Your task to perform on an android device: Search for 3d printer on AliExpress Image 0: 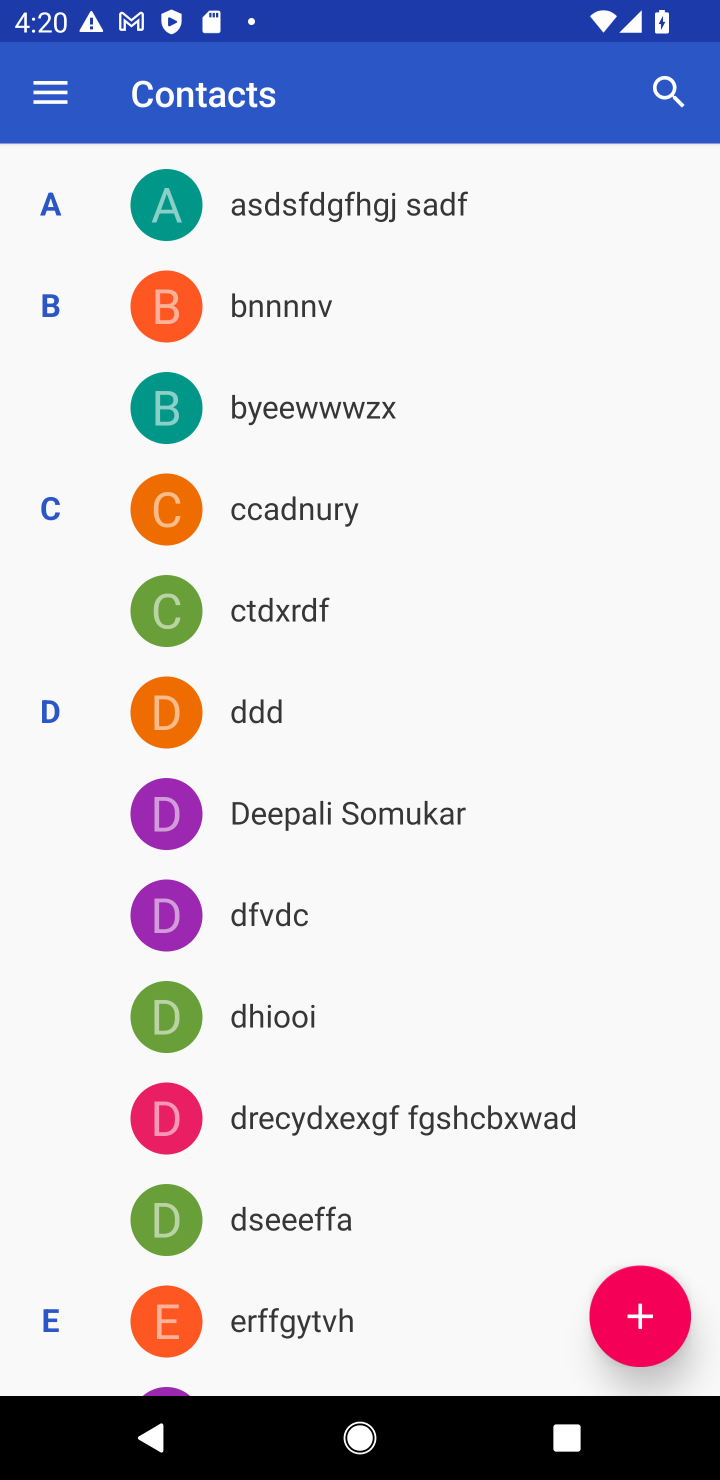
Step 0: press home button
Your task to perform on an android device: Search for 3d printer on AliExpress Image 1: 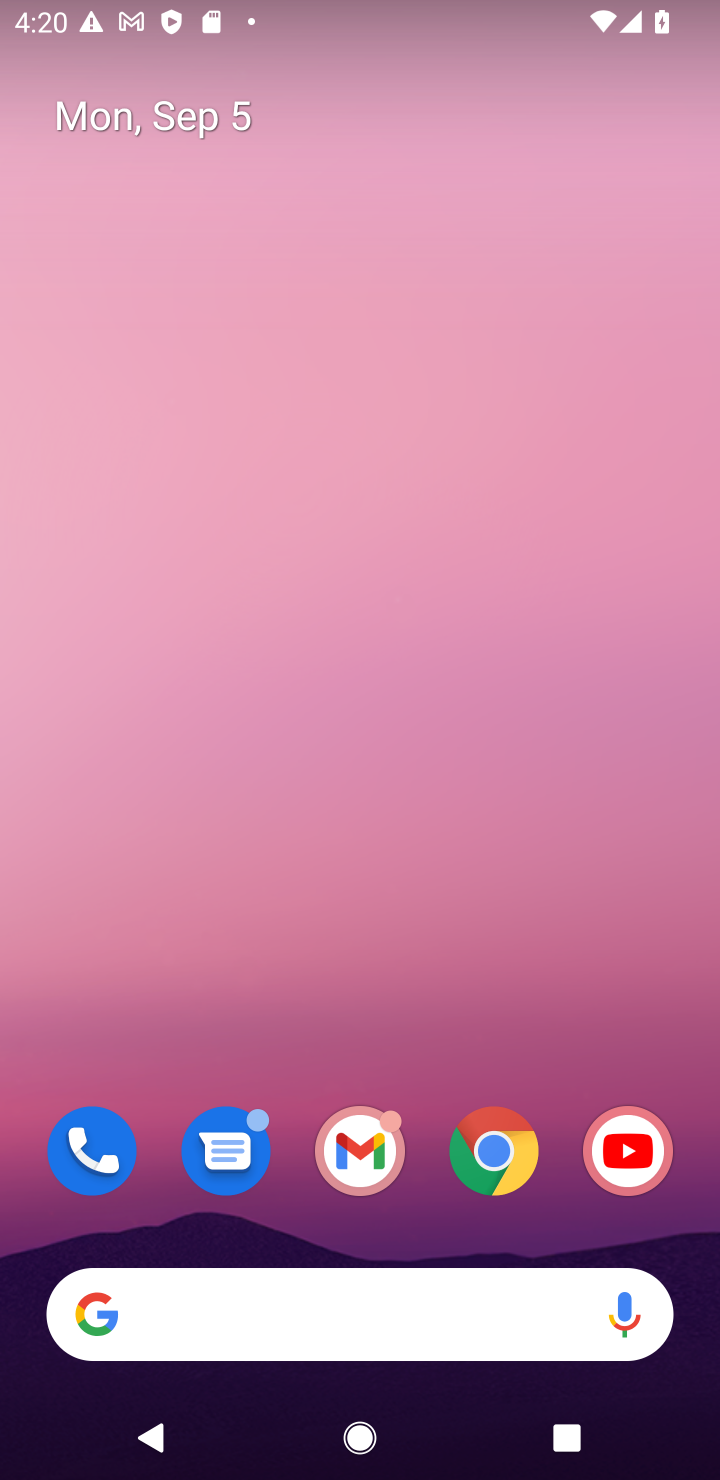
Step 1: drag from (444, 1168) to (394, 259)
Your task to perform on an android device: Search for 3d printer on AliExpress Image 2: 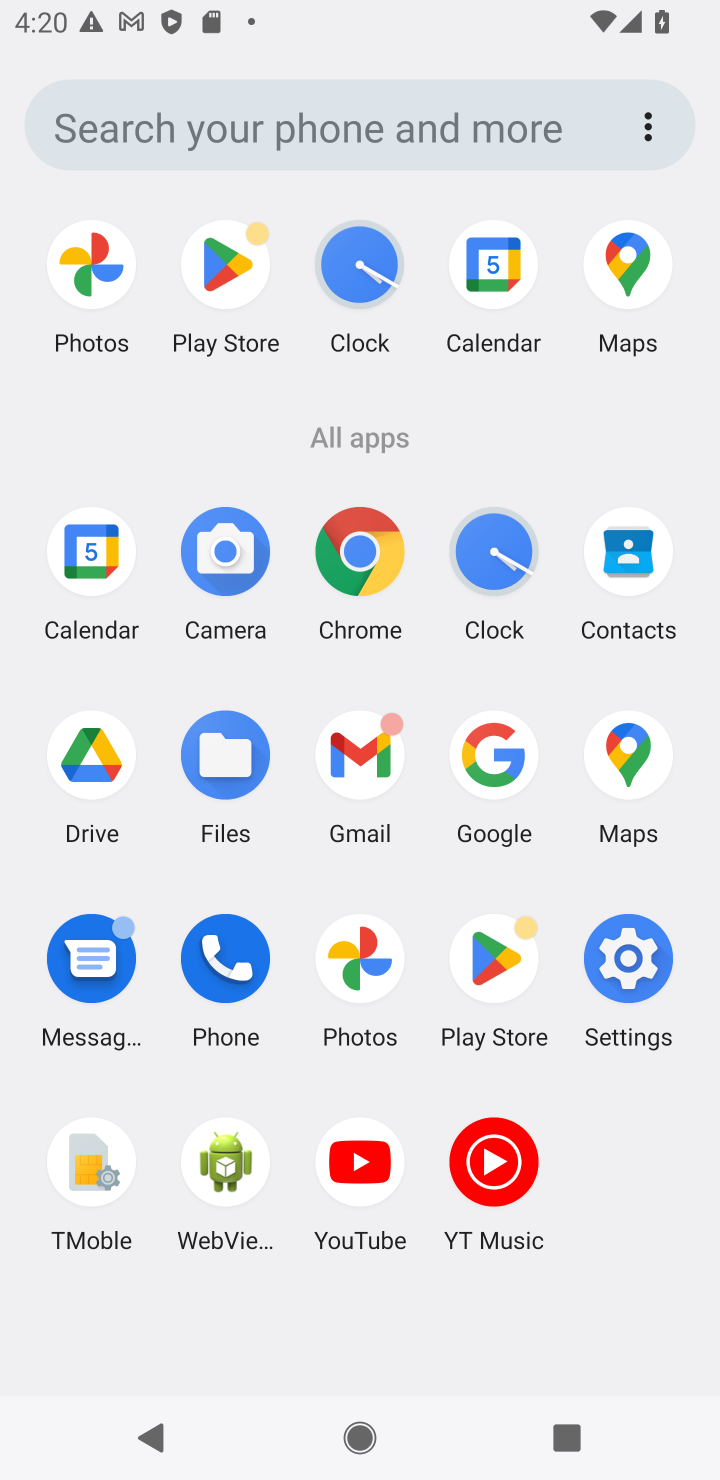
Step 2: click (365, 576)
Your task to perform on an android device: Search for 3d printer on AliExpress Image 3: 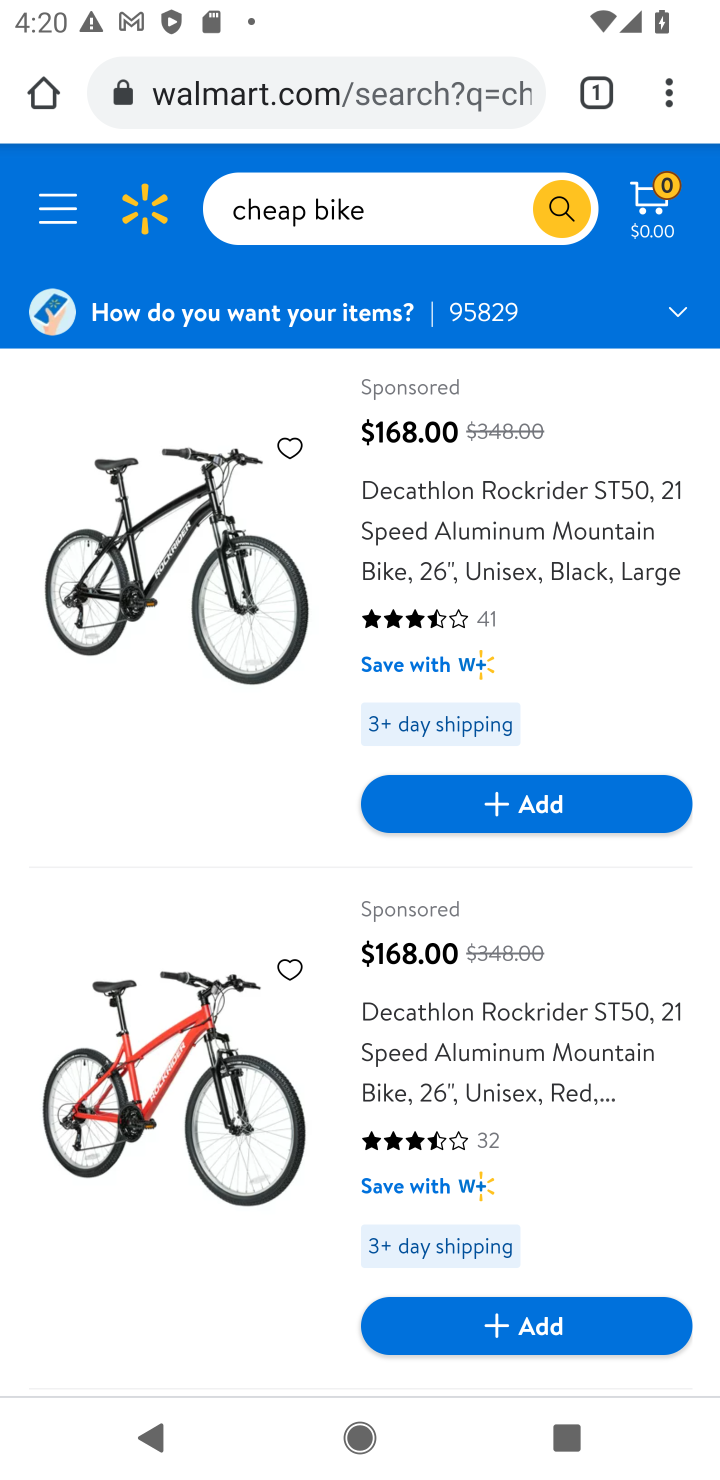
Step 3: click (362, 114)
Your task to perform on an android device: Search for 3d printer on AliExpress Image 4: 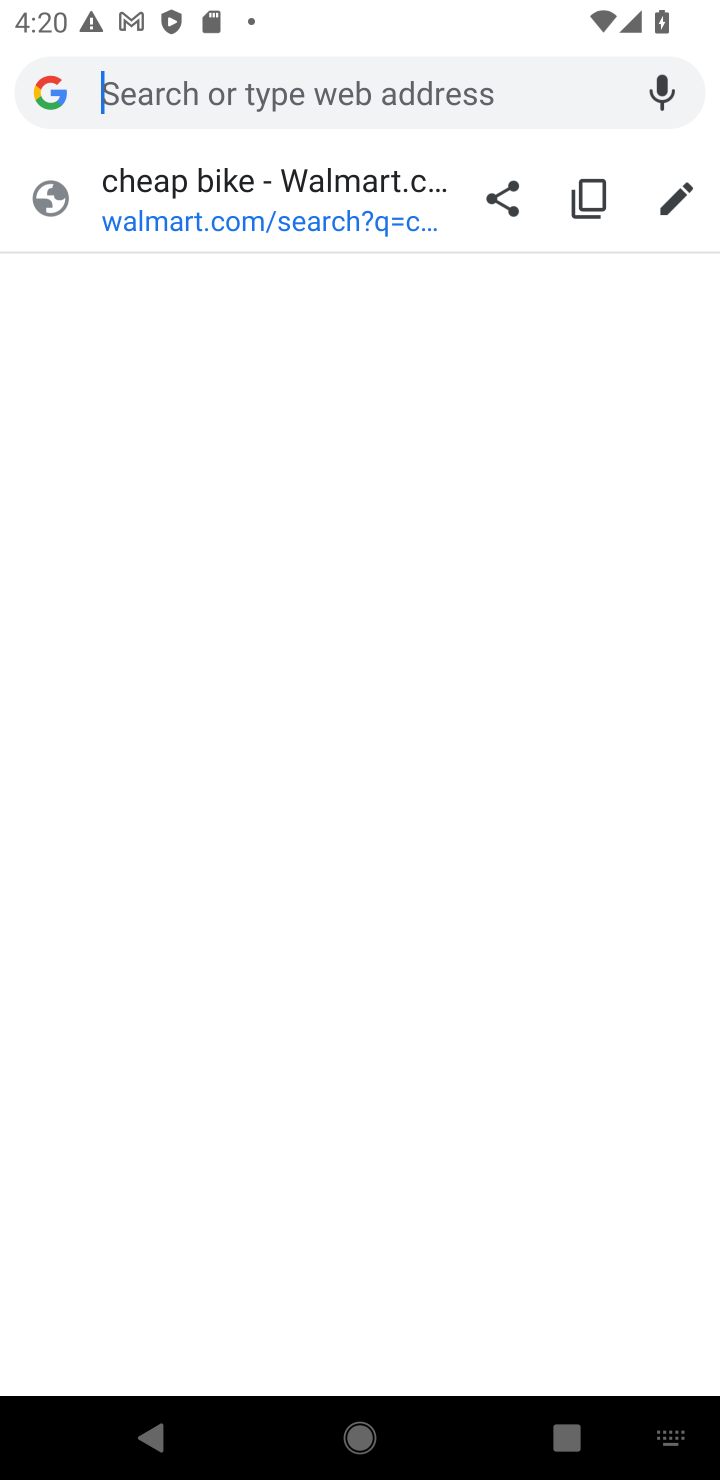
Step 4: type "AliExpress"
Your task to perform on an android device: Search for 3d printer on AliExpress Image 5: 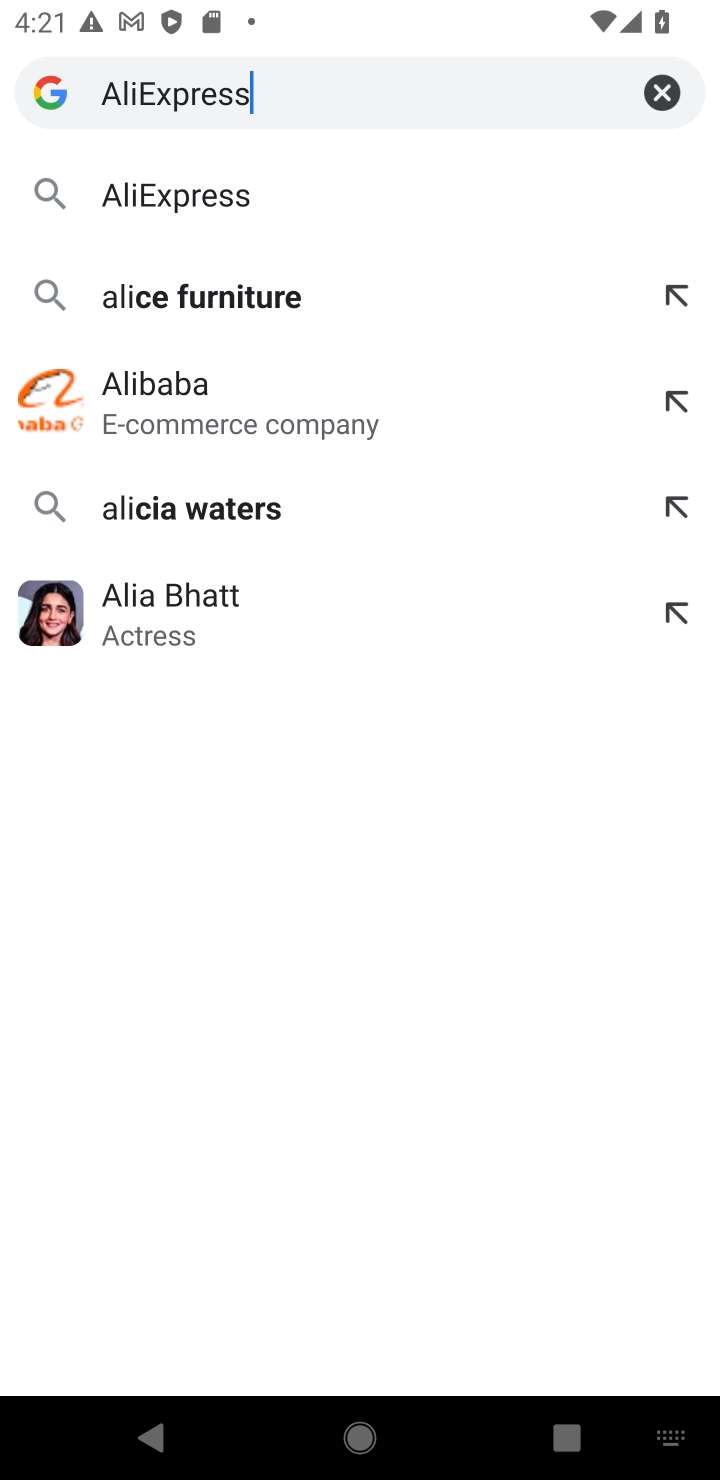
Step 5: click (315, 197)
Your task to perform on an android device: Search for 3d printer on AliExpress Image 6: 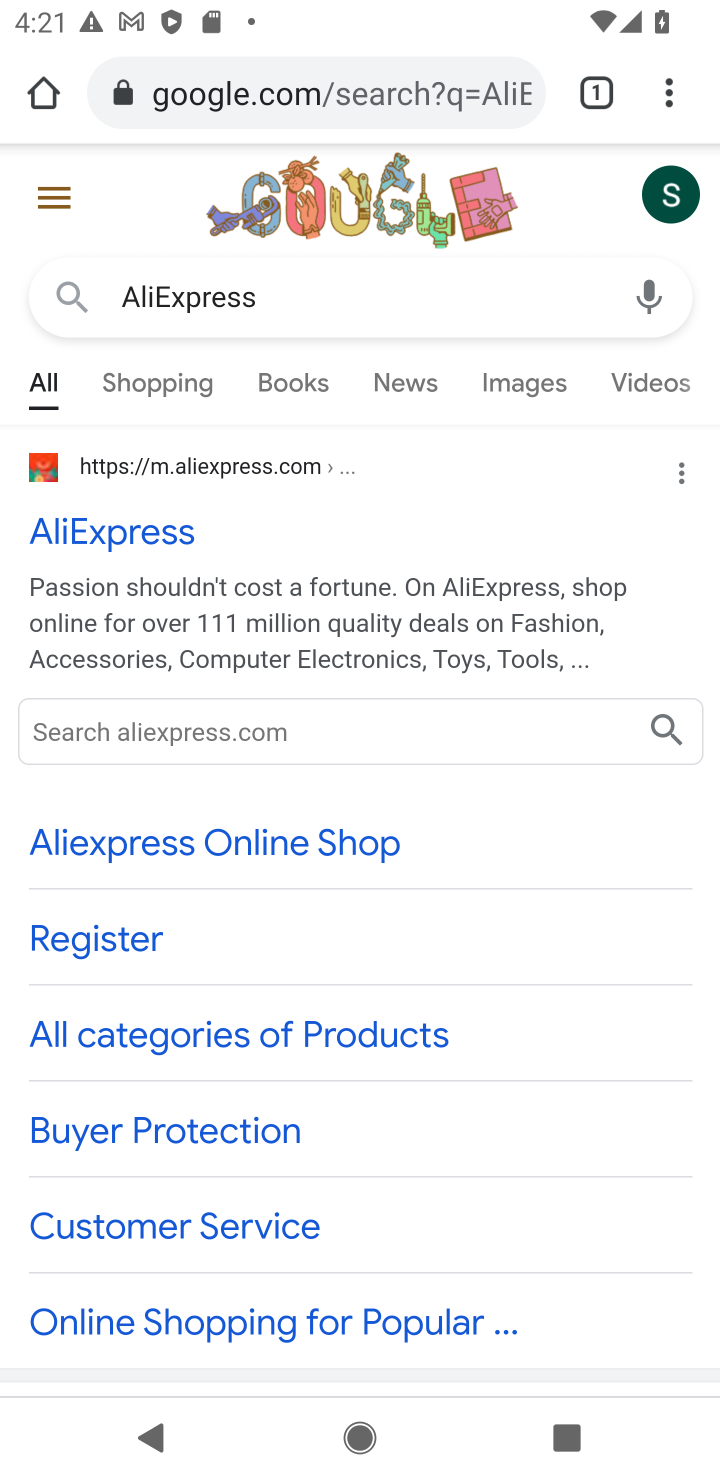
Step 6: click (147, 535)
Your task to perform on an android device: Search for 3d printer on AliExpress Image 7: 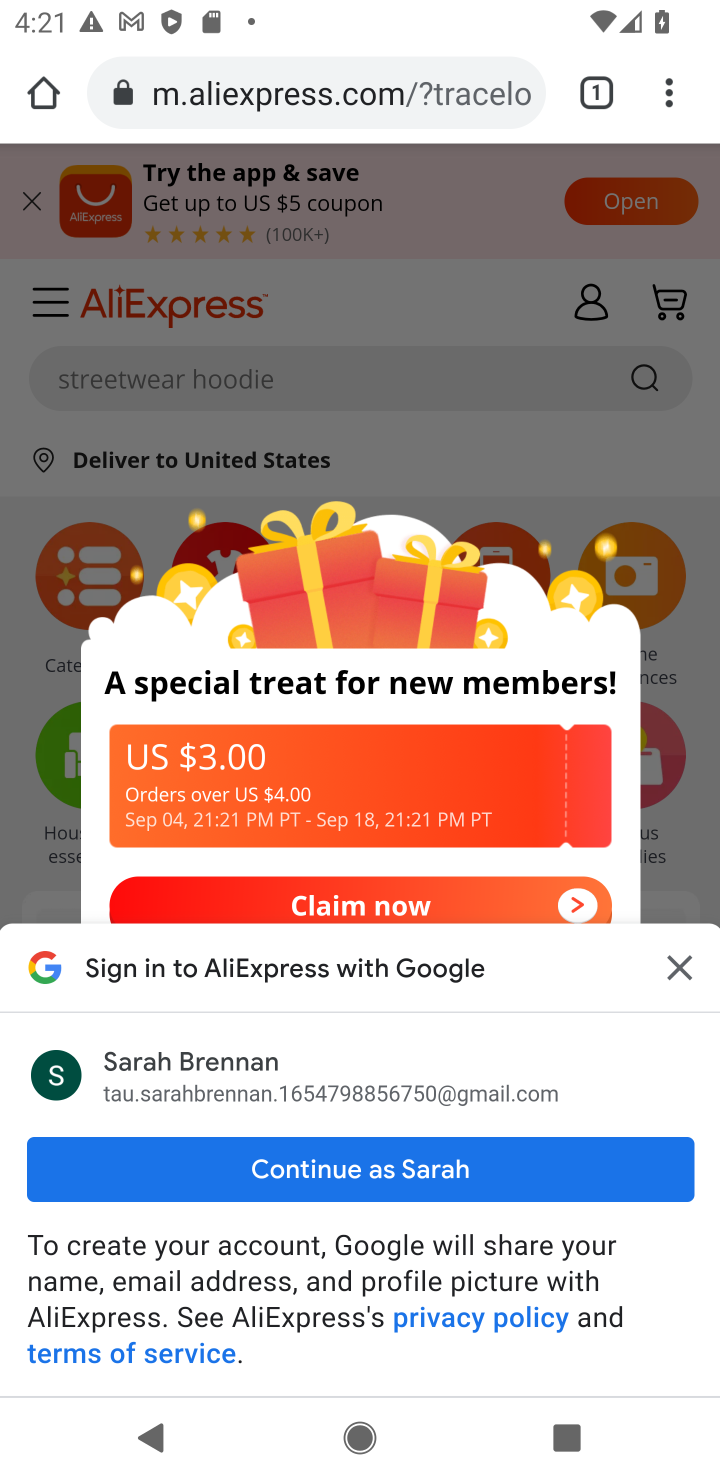
Step 7: click (686, 971)
Your task to perform on an android device: Search for 3d printer on AliExpress Image 8: 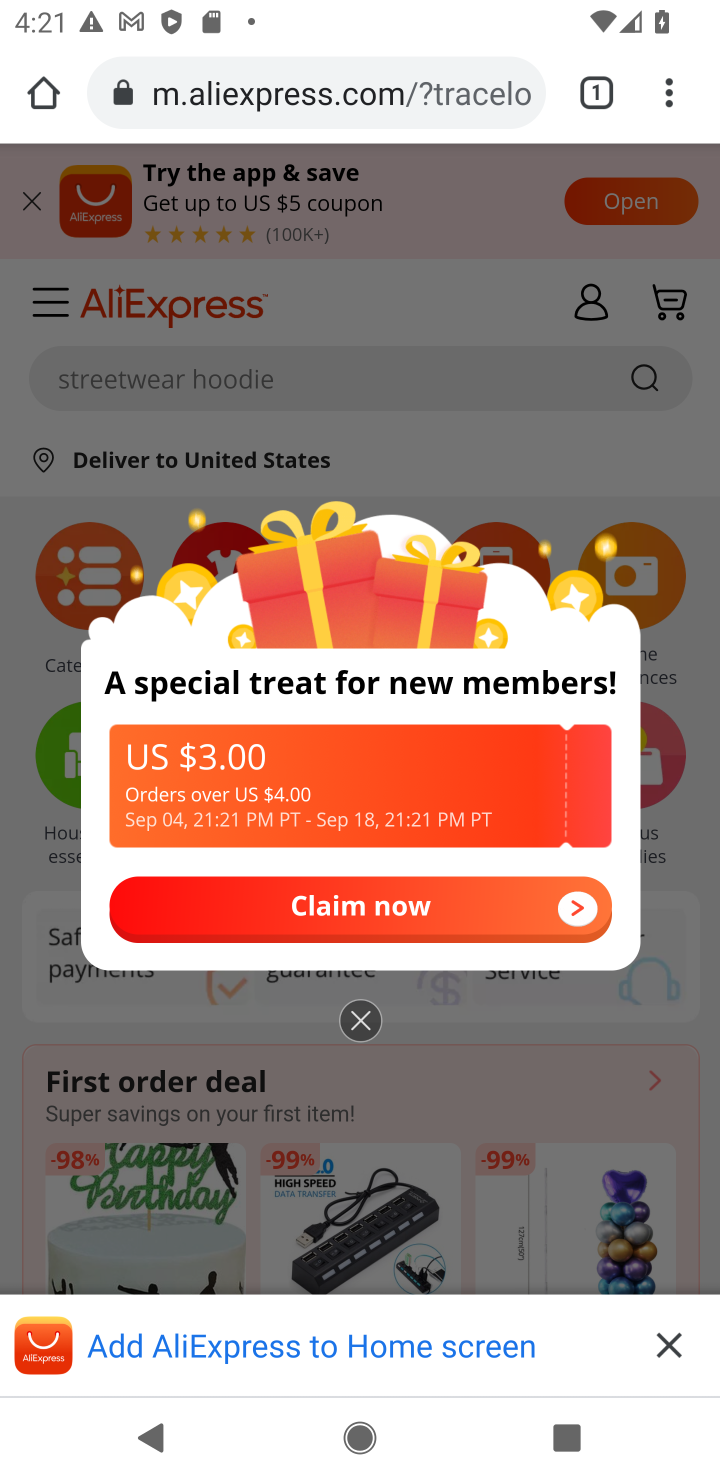
Step 8: click (667, 1347)
Your task to perform on an android device: Search for 3d printer on AliExpress Image 9: 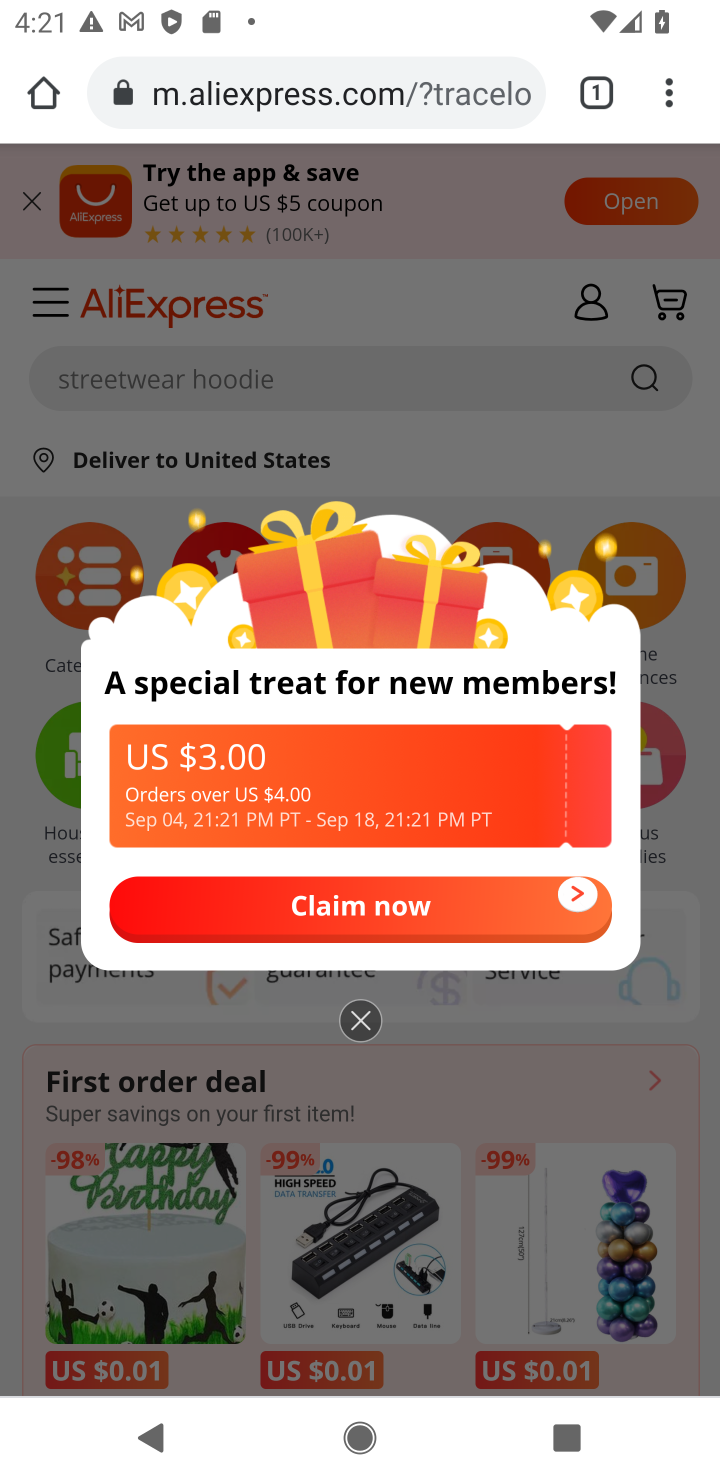
Step 9: click (583, 1263)
Your task to perform on an android device: Search for 3d printer on AliExpress Image 10: 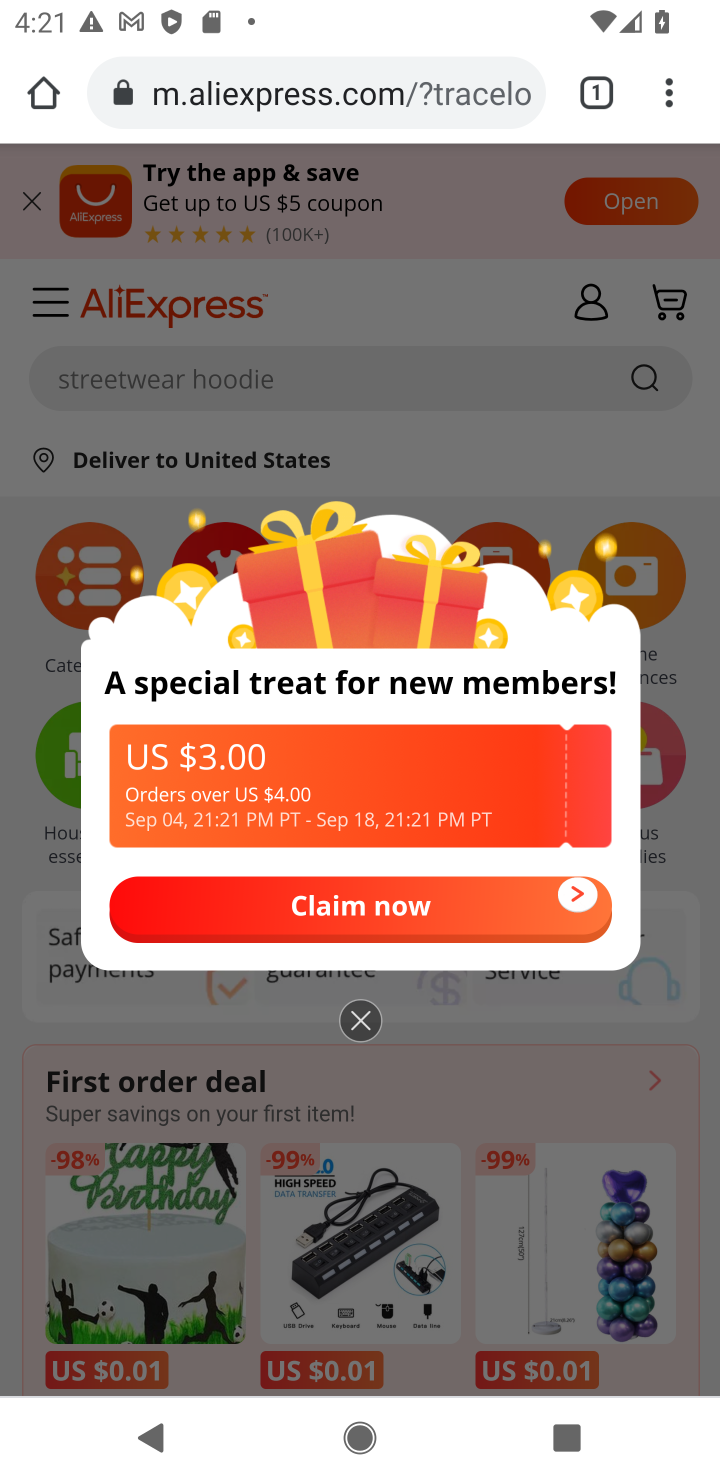
Step 10: click (365, 1030)
Your task to perform on an android device: Search for 3d printer on AliExpress Image 11: 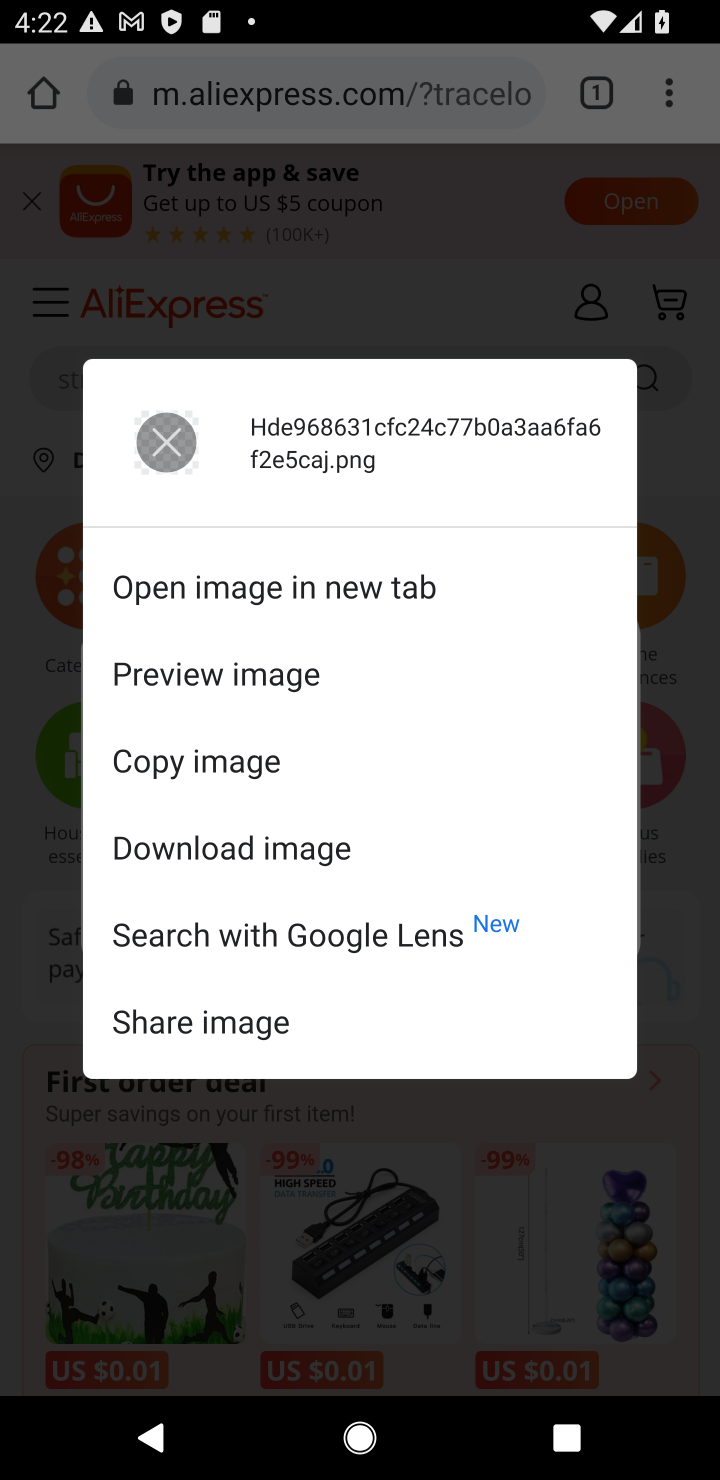
Step 11: click (402, 1159)
Your task to perform on an android device: Search for 3d printer on AliExpress Image 12: 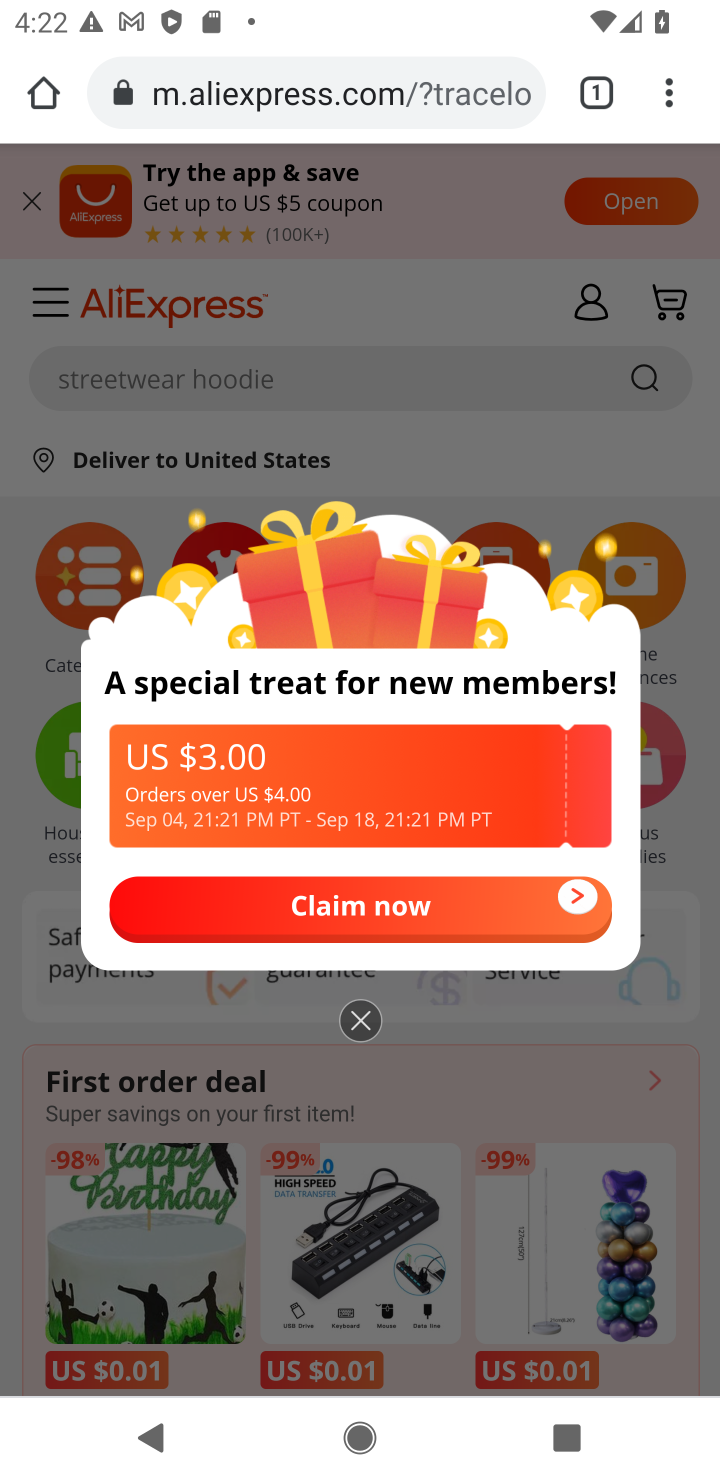
Step 12: click (352, 1025)
Your task to perform on an android device: Search for 3d printer on AliExpress Image 13: 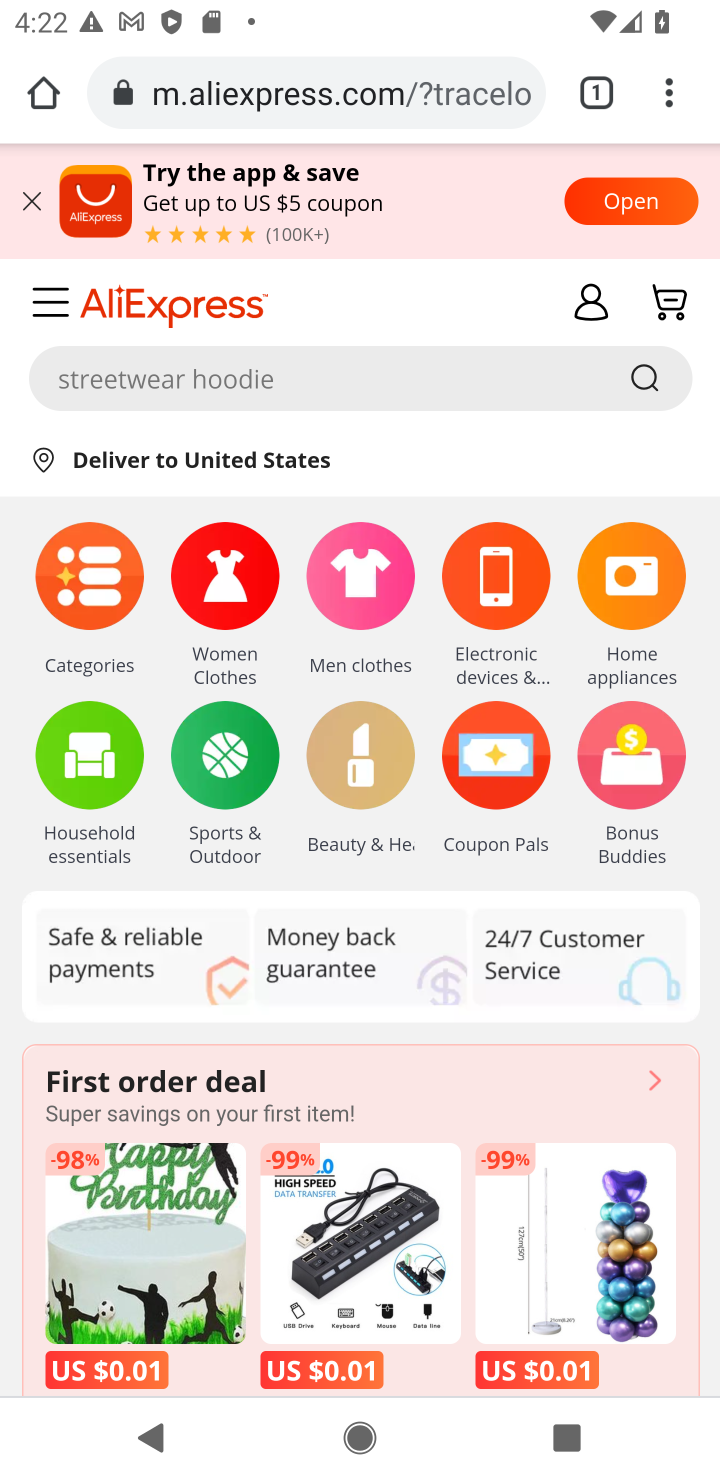
Step 13: click (343, 364)
Your task to perform on an android device: Search for 3d printer on AliExpress Image 14: 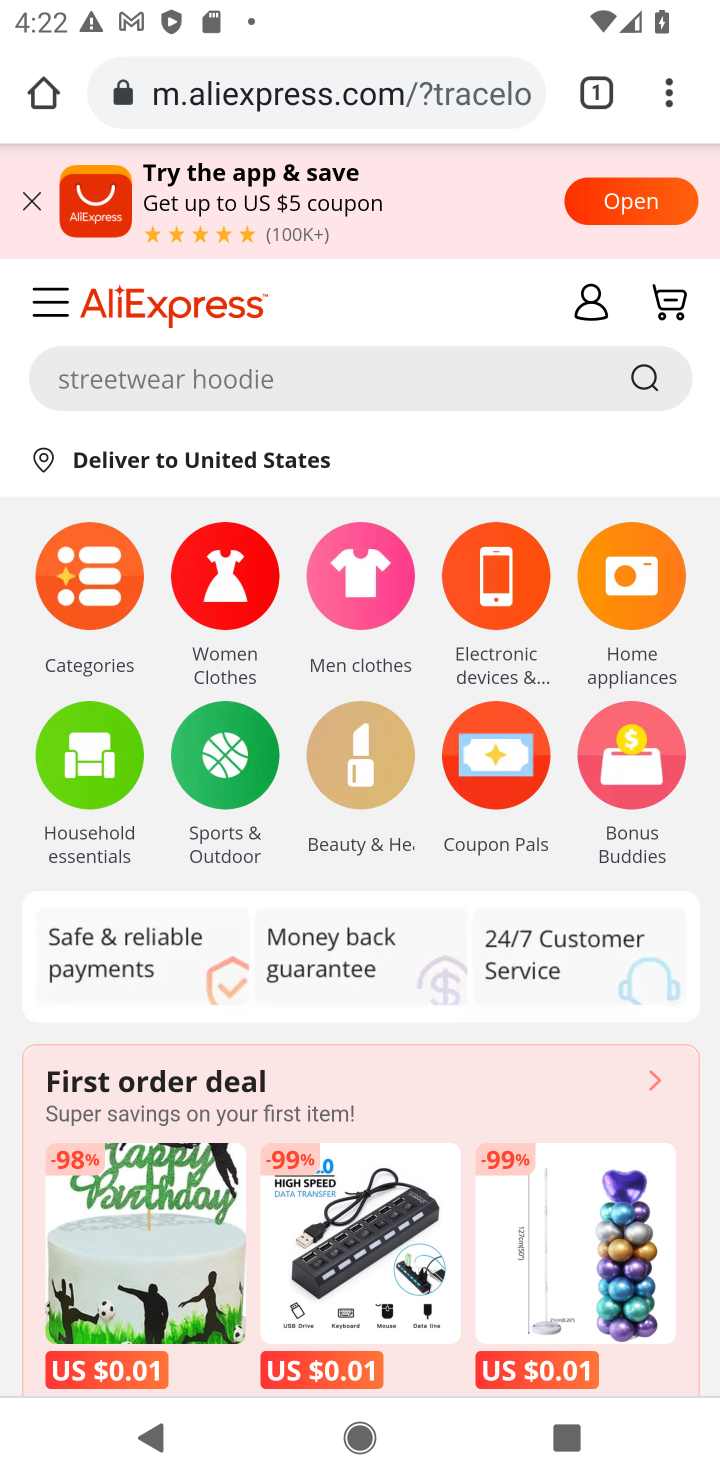
Step 14: click (644, 376)
Your task to perform on an android device: Search for 3d printer on AliExpress Image 15: 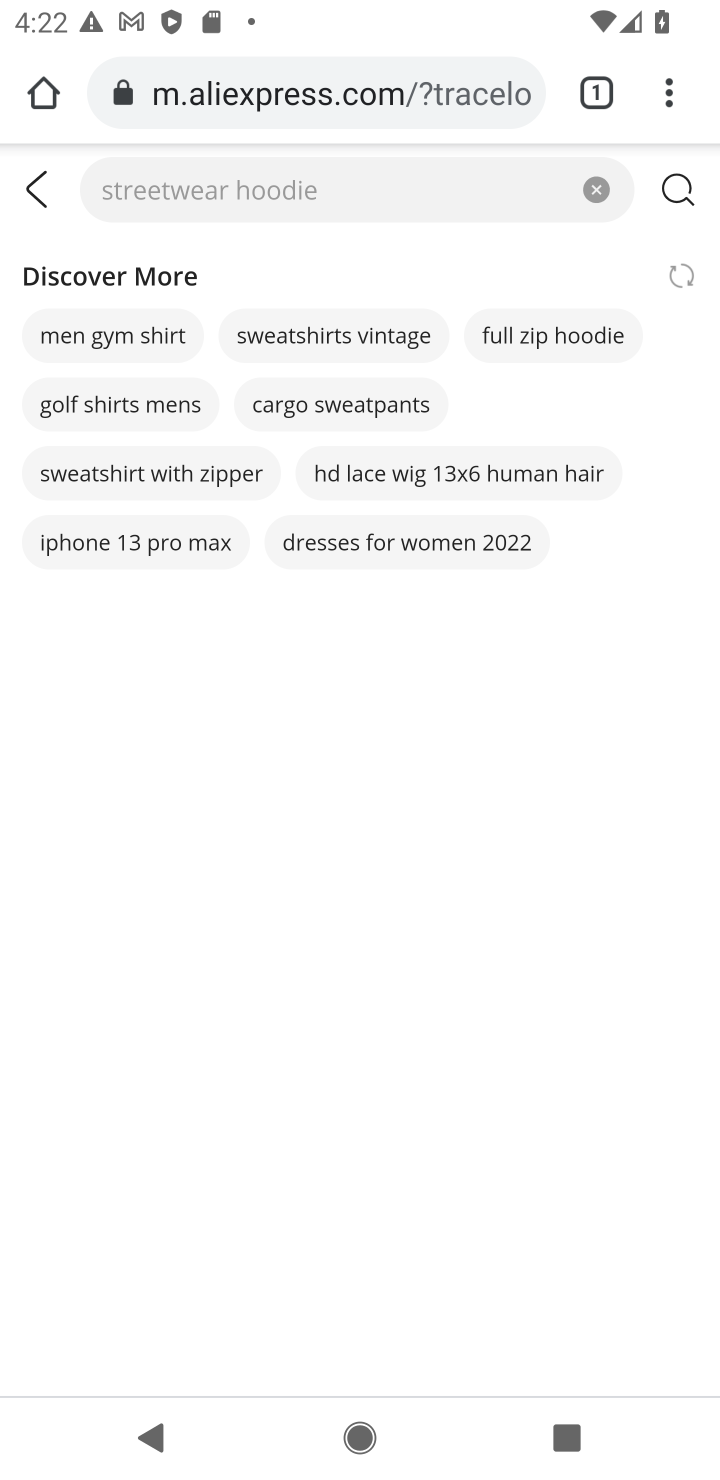
Step 15: click (410, 187)
Your task to perform on an android device: Search for 3d printer on AliExpress Image 16: 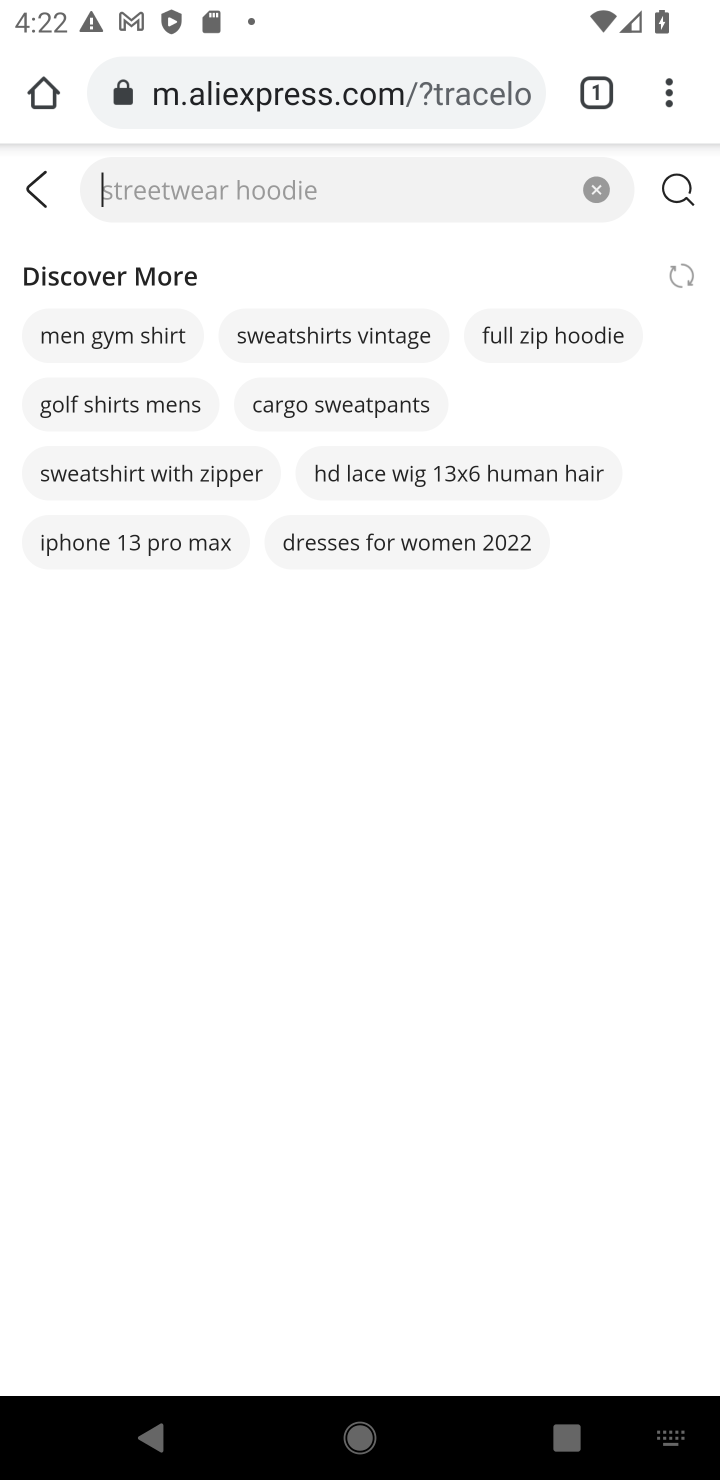
Step 16: type "3d printers"
Your task to perform on an android device: Search for 3d printer on AliExpress Image 17: 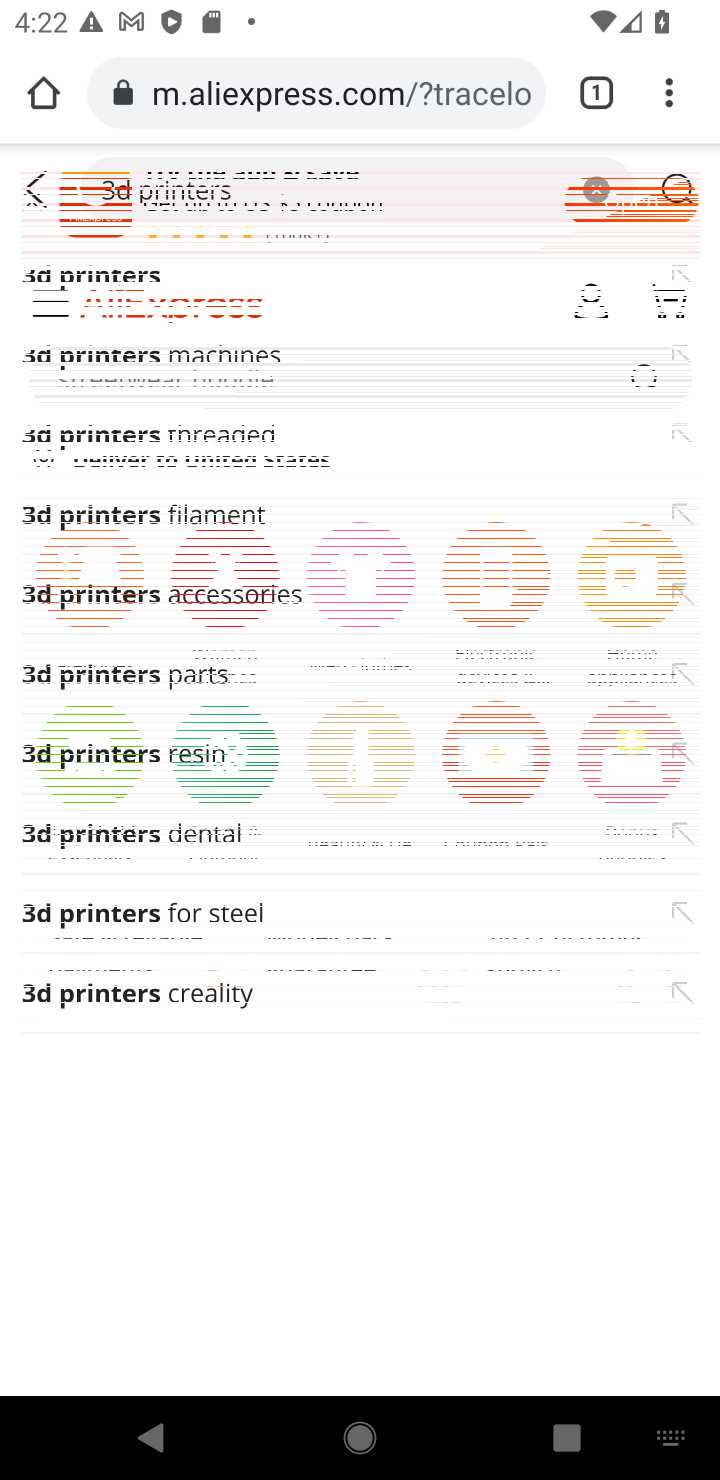
Step 17: click (679, 200)
Your task to perform on an android device: Search for 3d printer on AliExpress Image 18: 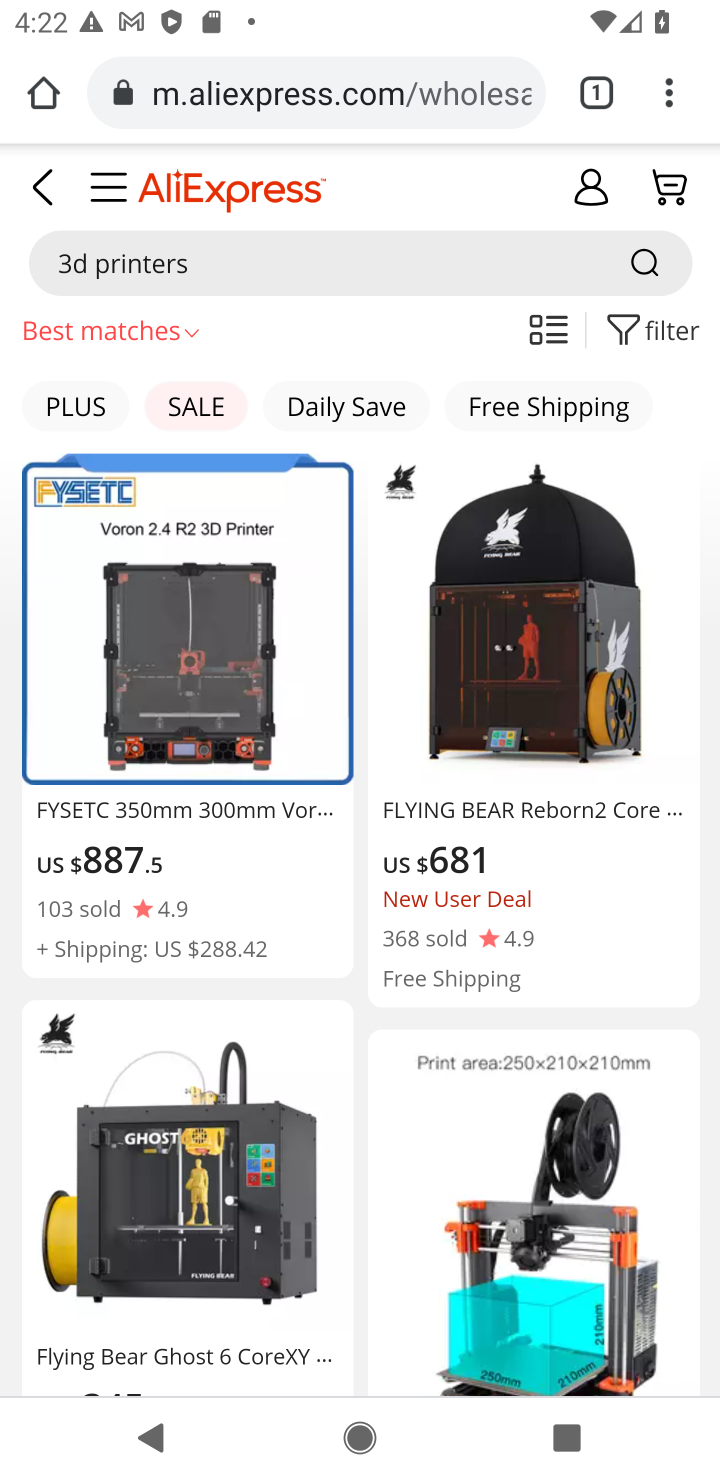
Step 18: task complete